Your task to perform on an android device: Go to eBay Image 0: 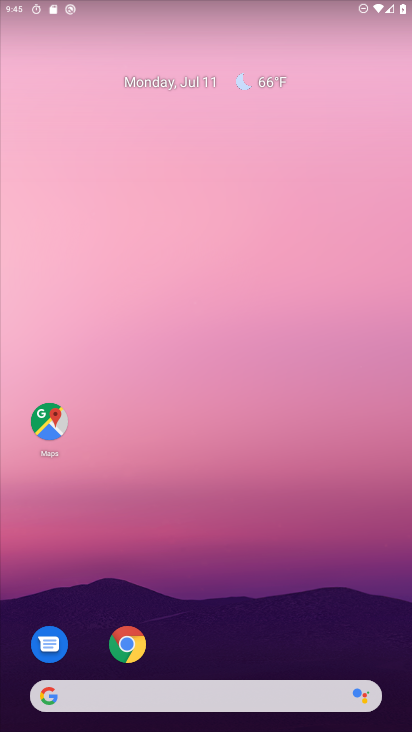
Step 0: drag from (268, 520) to (266, 31)
Your task to perform on an android device: Go to eBay Image 1: 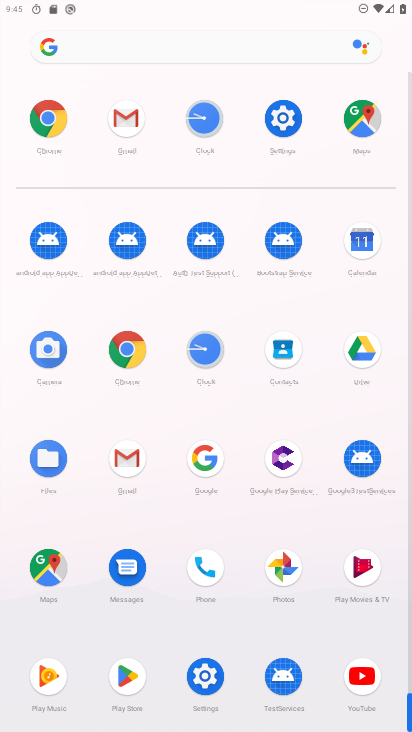
Step 1: click (50, 119)
Your task to perform on an android device: Go to eBay Image 2: 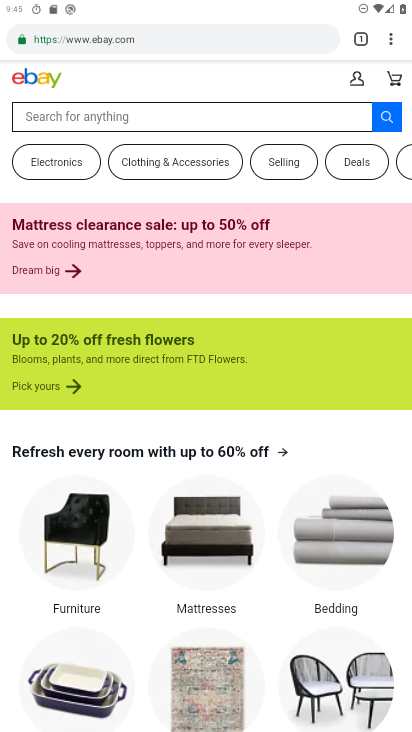
Step 2: task complete